Your task to perform on an android device: Open location settings Image 0: 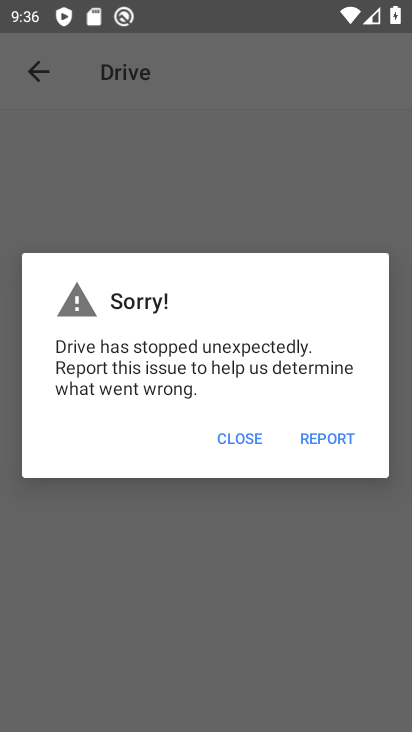
Step 0: click (229, 431)
Your task to perform on an android device: Open location settings Image 1: 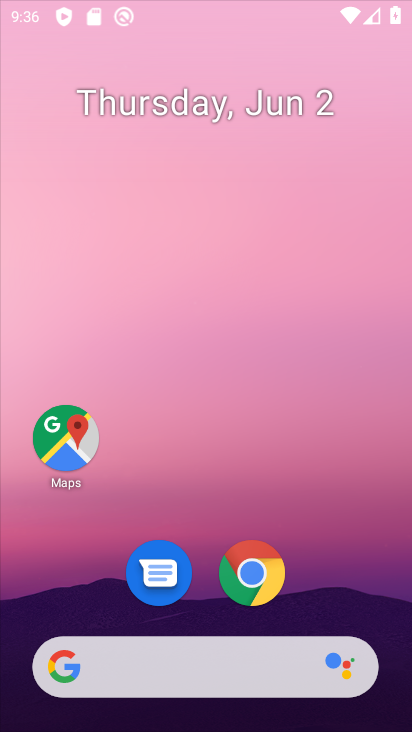
Step 1: click (229, 431)
Your task to perform on an android device: Open location settings Image 2: 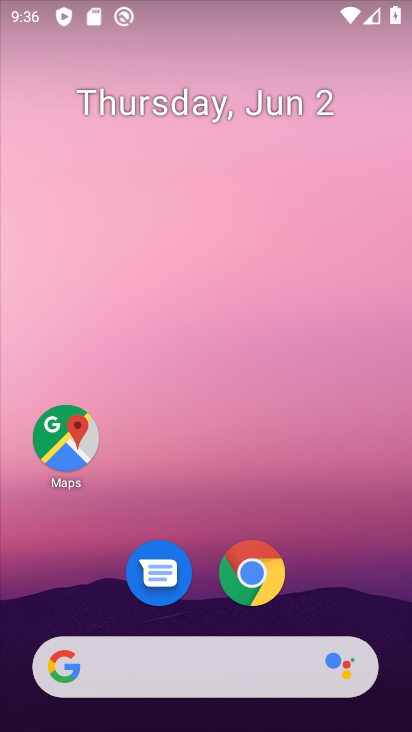
Step 2: drag from (332, 591) to (315, 22)
Your task to perform on an android device: Open location settings Image 3: 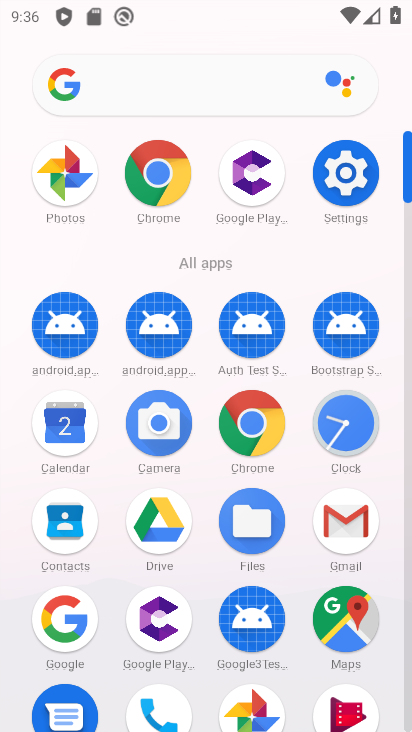
Step 3: click (351, 170)
Your task to perform on an android device: Open location settings Image 4: 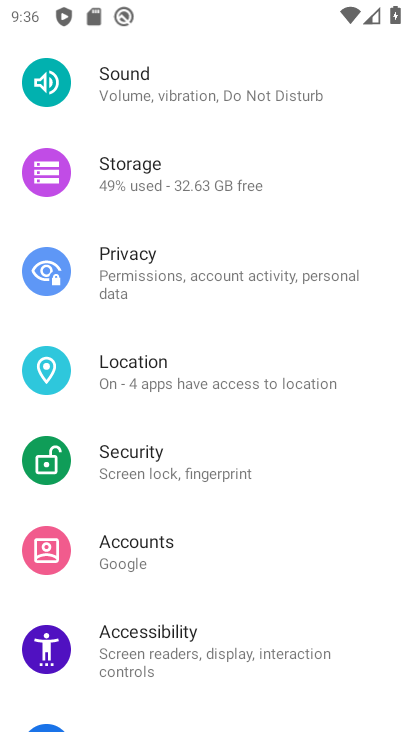
Step 4: click (163, 373)
Your task to perform on an android device: Open location settings Image 5: 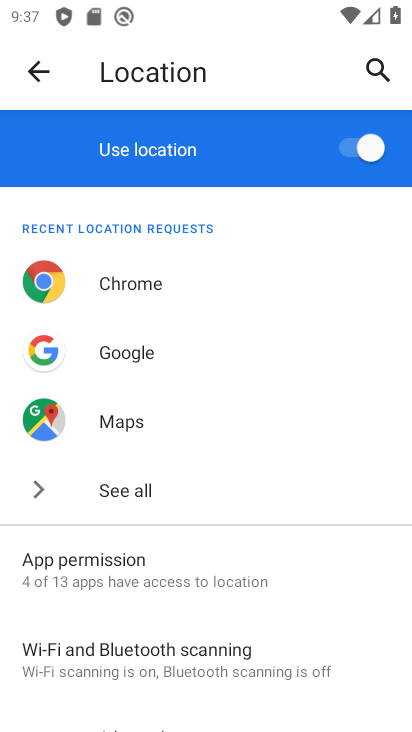
Step 5: task complete